Your task to perform on an android device: open a new tab in the chrome app Image 0: 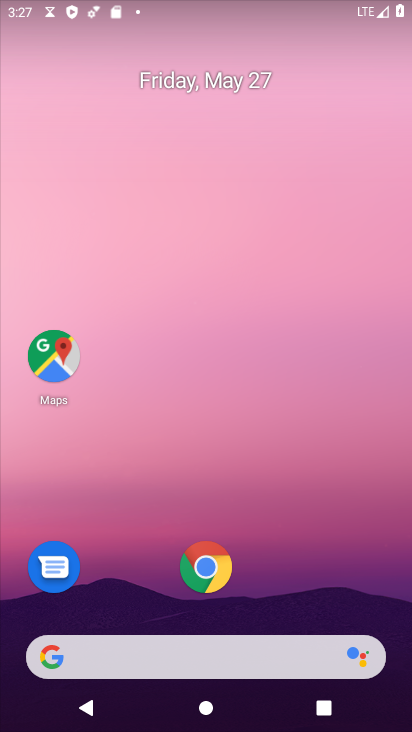
Step 0: click (204, 561)
Your task to perform on an android device: open a new tab in the chrome app Image 1: 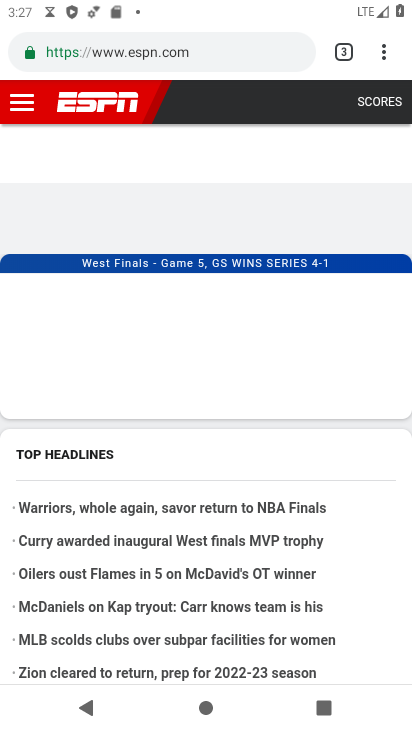
Step 1: drag from (384, 50) to (204, 100)
Your task to perform on an android device: open a new tab in the chrome app Image 2: 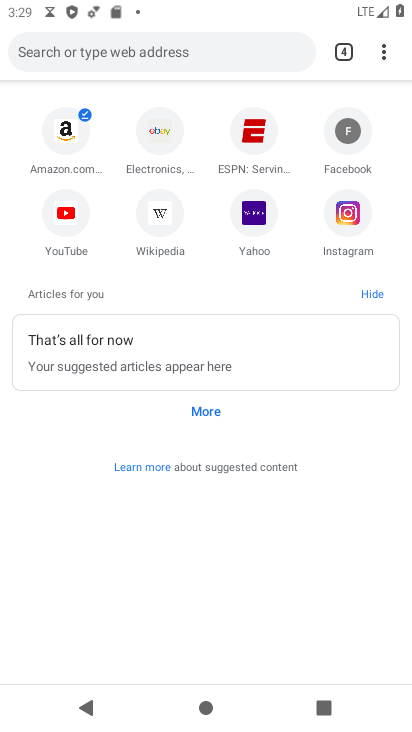
Step 2: click (347, 52)
Your task to perform on an android device: open a new tab in the chrome app Image 3: 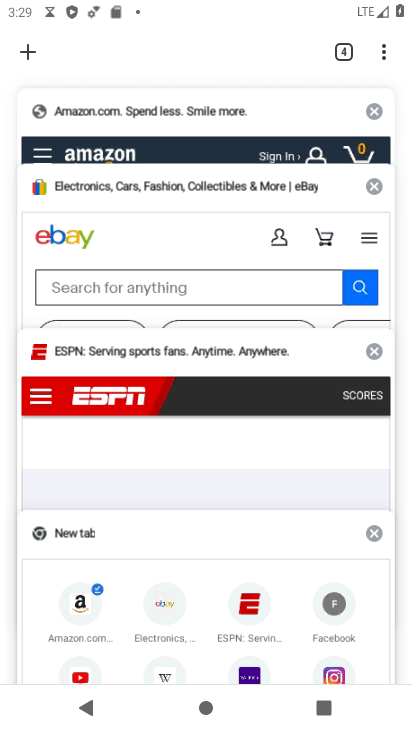
Step 3: click (27, 60)
Your task to perform on an android device: open a new tab in the chrome app Image 4: 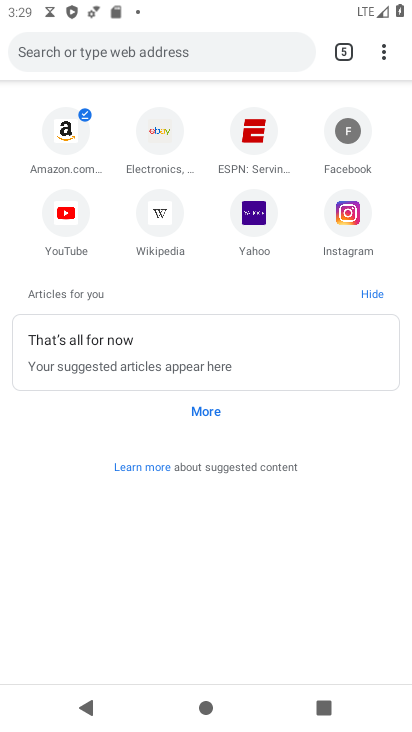
Step 4: task complete